Your task to perform on an android device: Go to Amazon Image 0: 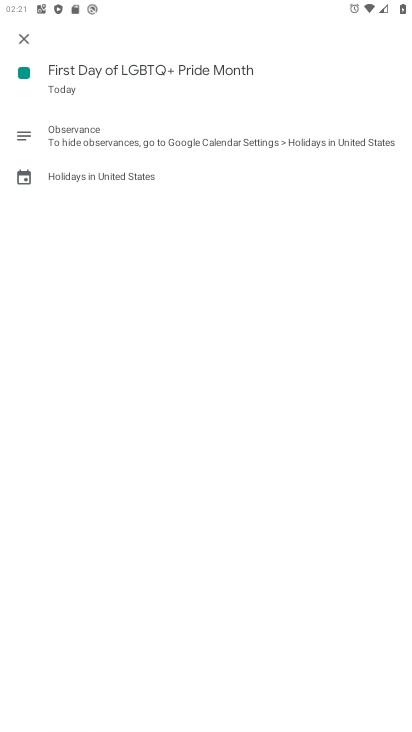
Step 0: press back button
Your task to perform on an android device: Go to Amazon Image 1: 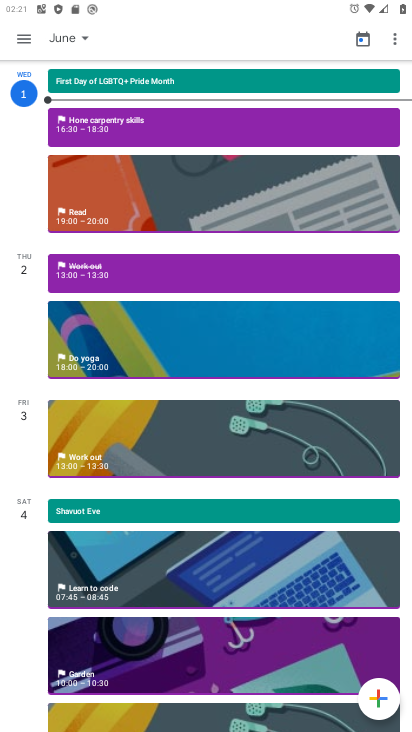
Step 1: press home button
Your task to perform on an android device: Go to Amazon Image 2: 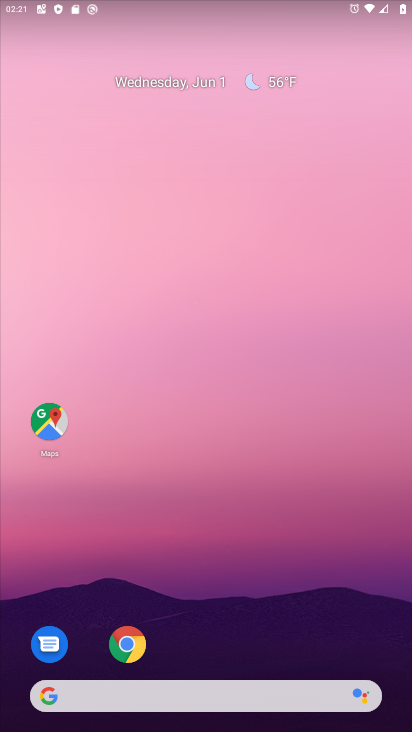
Step 2: click (117, 649)
Your task to perform on an android device: Go to Amazon Image 3: 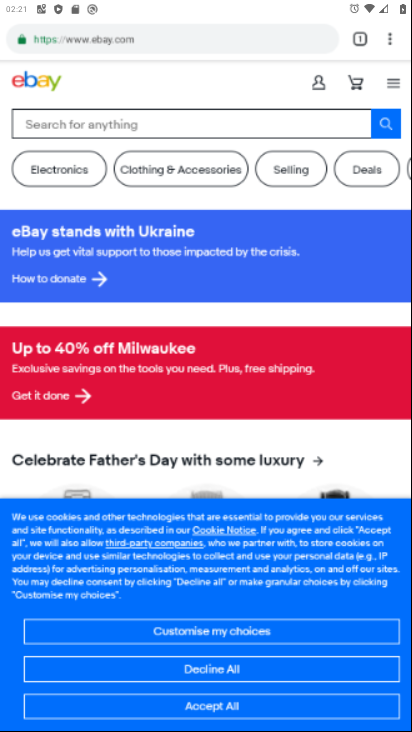
Step 3: click (360, 35)
Your task to perform on an android device: Go to Amazon Image 4: 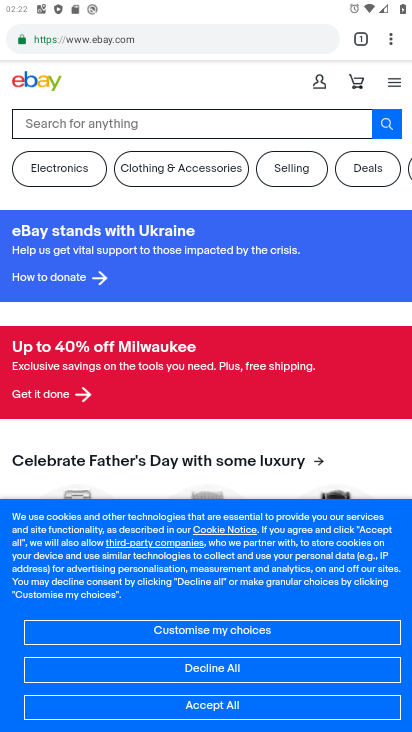
Step 4: click (367, 43)
Your task to perform on an android device: Go to Amazon Image 5: 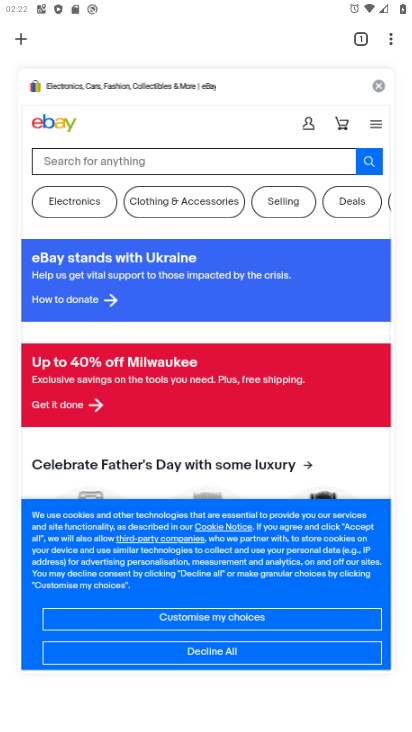
Step 5: click (379, 86)
Your task to perform on an android device: Go to Amazon Image 6: 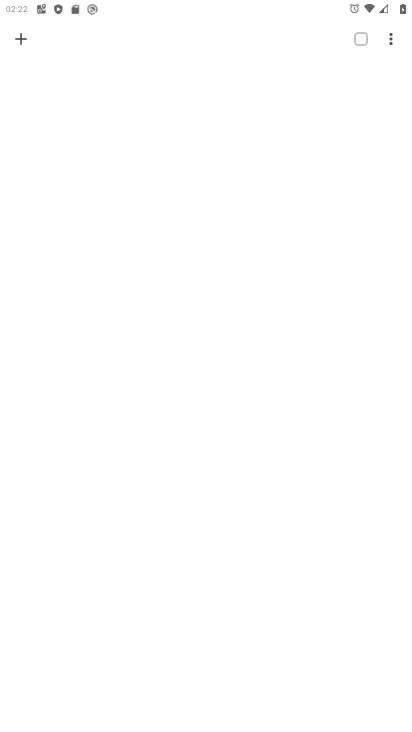
Step 6: click (25, 37)
Your task to perform on an android device: Go to Amazon Image 7: 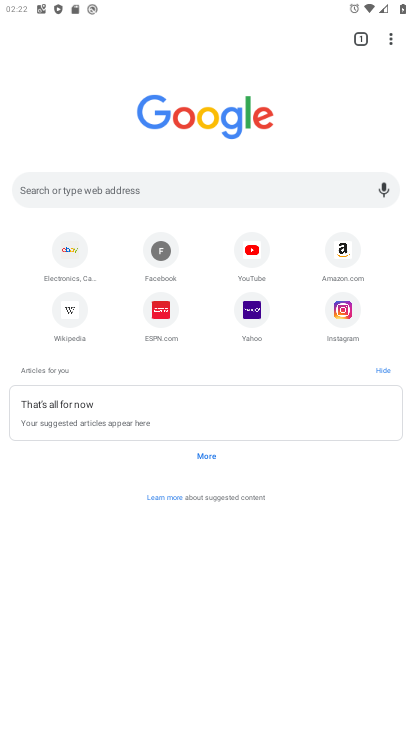
Step 7: click (338, 249)
Your task to perform on an android device: Go to Amazon Image 8: 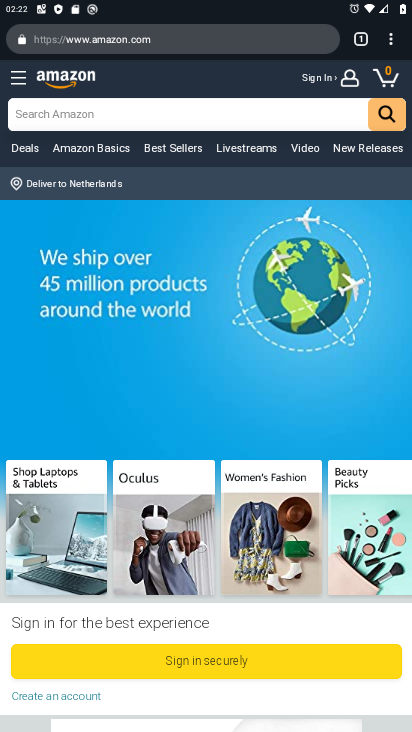
Step 8: task complete